Your task to perform on an android device: Show me recent news Image 0: 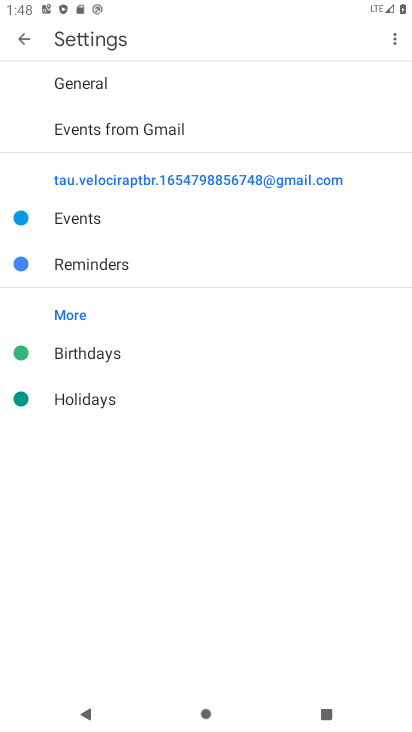
Step 0: press home button
Your task to perform on an android device: Show me recent news Image 1: 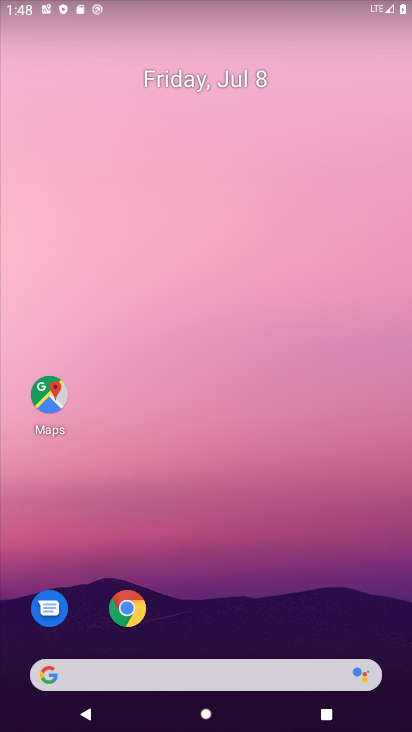
Step 1: task complete